Your task to perform on an android device: open chrome privacy settings Image 0: 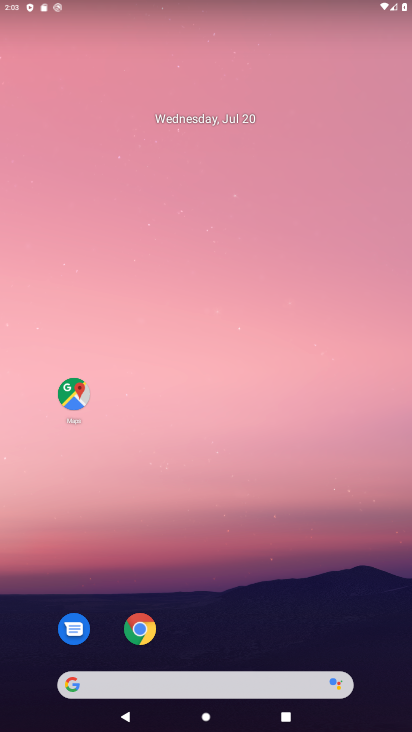
Step 0: click (149, 622)
Your task to perform on an android device: open chrome privacy settings Image 1: 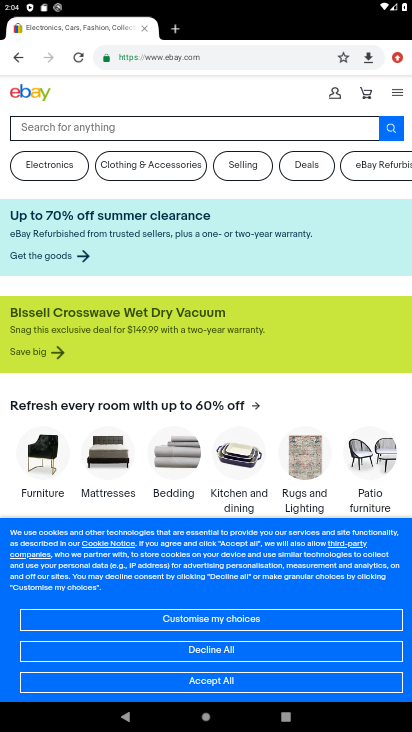
Step 1: click (405, 53)
Your task to perform on an android device: open chrome privacy settings Image 2: 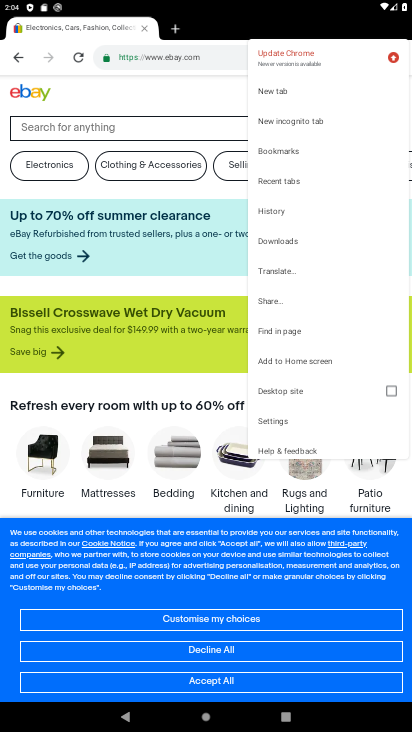
Step 2: click (284, 416)
Your task to perform on an android device: open chrome privacy settings Image 3: 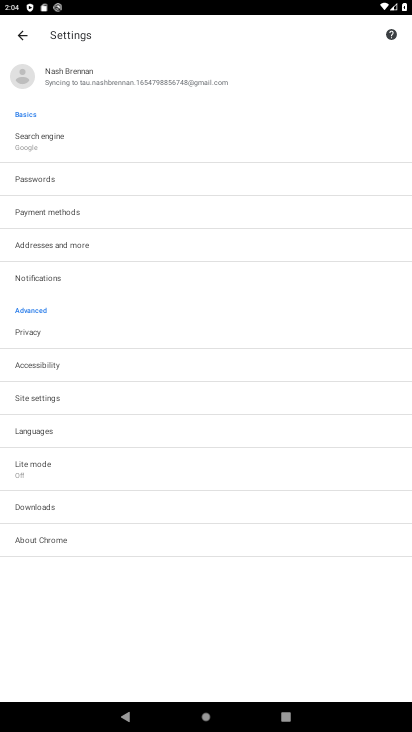
Step 3: click (57, 335)
Your task to perform on an android device: open chrome privacy settings Image 4: 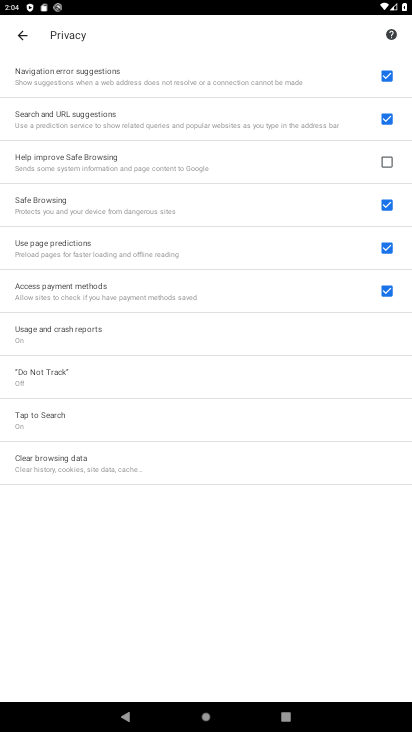
Step 4: task complete